Your task to perform on an android device: show emergency info Image 0: 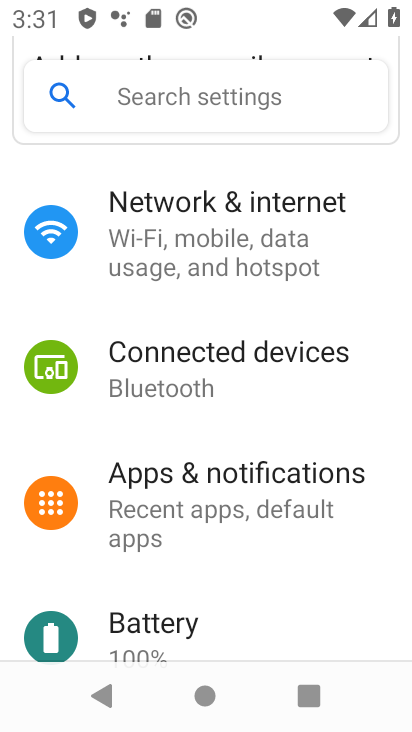
Step 0: drag from (324, 640) to (332, 167)
Your task to perform on an android device: show emergency info Image 1: 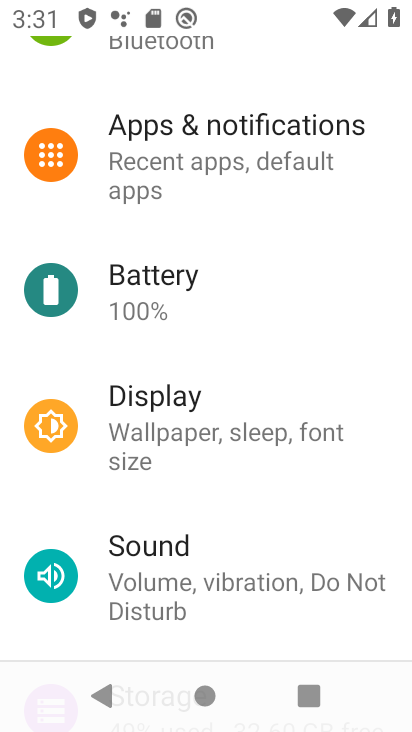
Step 1: drag from (349, 624) to (370, 195)
Your task to perform on an android device: show emergency info Image 2: 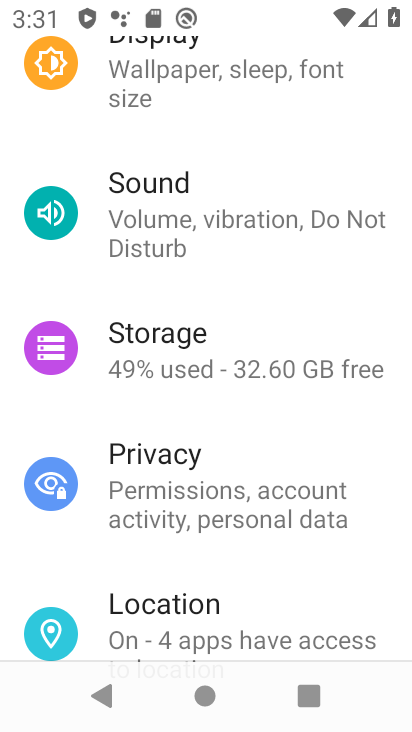
Step 2: drag from (333, 629) to (366, 222)
Your task to perform on an android device: show emergency info Image 3: 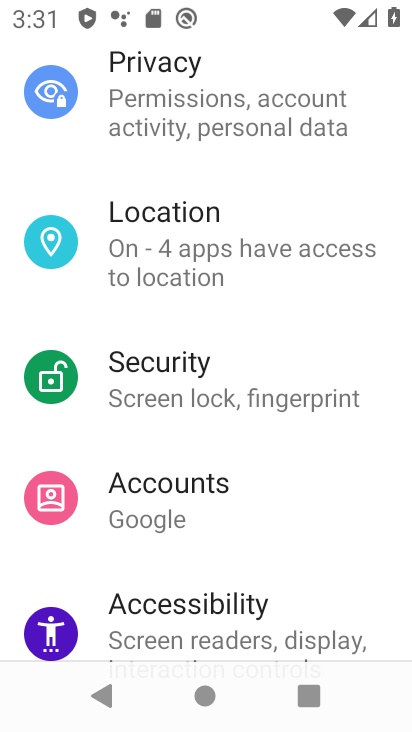
Step 3: click (222, 635)
Your task to perform on an android device: show emergency info Image 4: 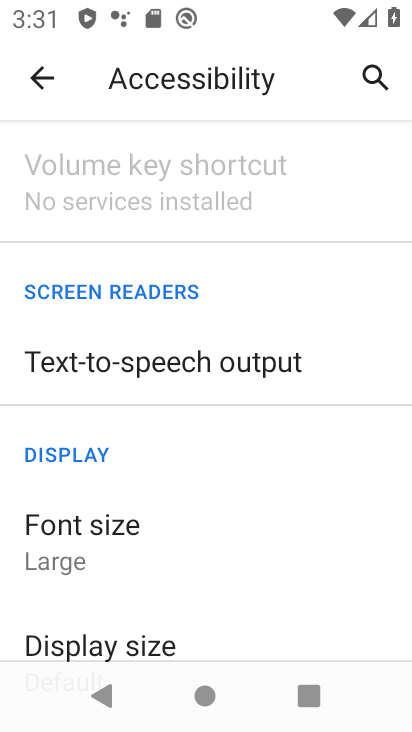
Step 4: drag from (233, 630) to (268, 245)
Your task to perform on an android device: show emergency info Image 5: 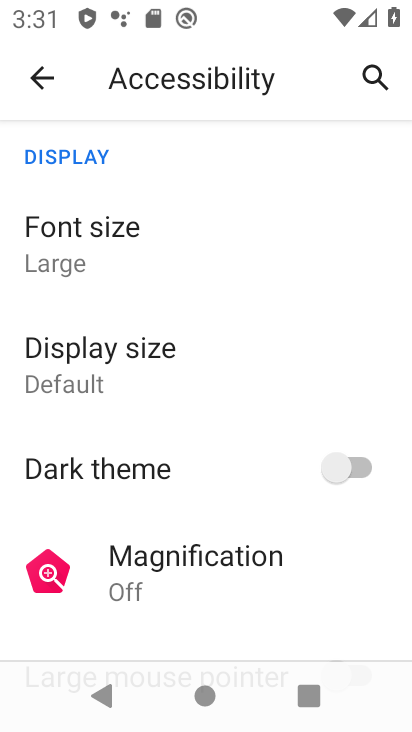
Step 5: click (43, 76)
Your task to perform on an android device: show emergency info Image 6: 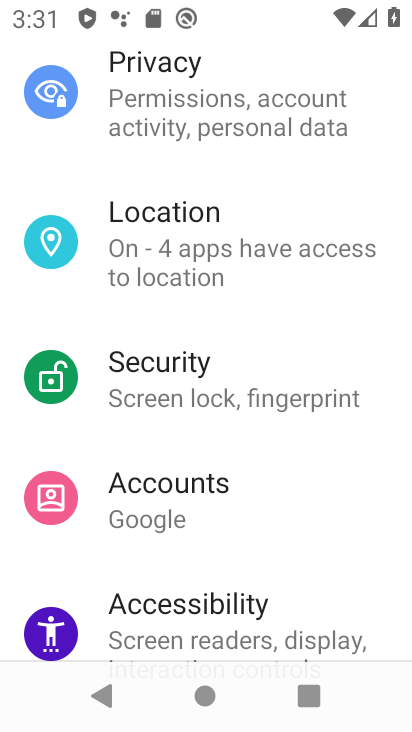
Step 6: drag from (225, 630) to (222, 190)
Your task to perform on an android device: show emergency info Image 7: 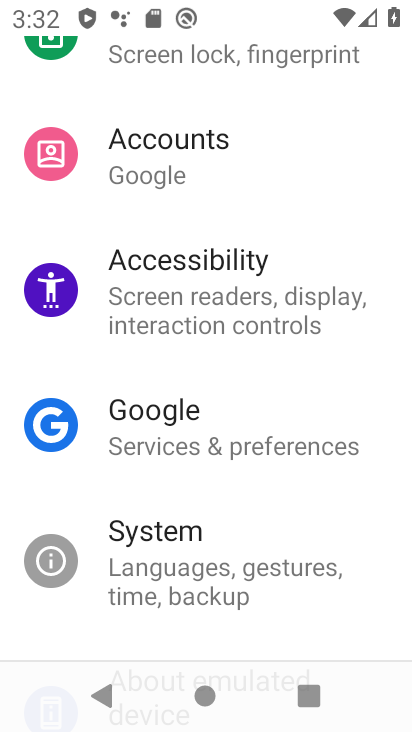
Step 7: drag from (238, 590) to (262, 211)
Your task to perform on an android device: show emergency info Image 8: 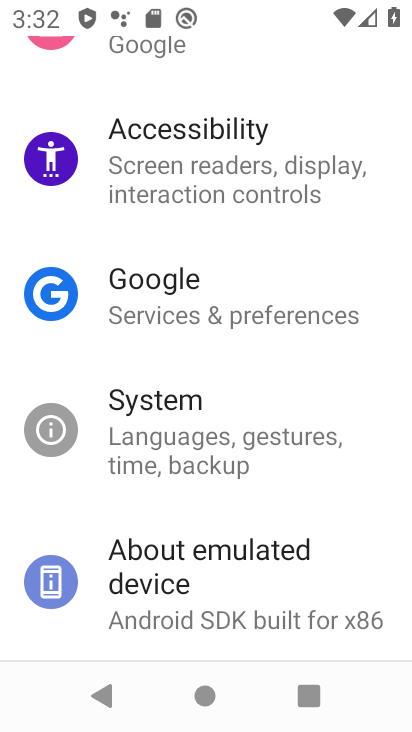
Step 8: click (215, 596)
Your task to perform on an android device: show emergency info Image 9: 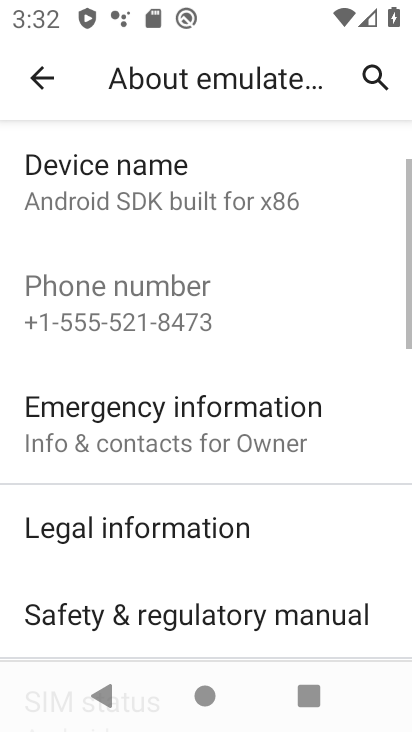
Step 9: click (178, 428)
Your task to perform on an android device: show emergency info Image 10: 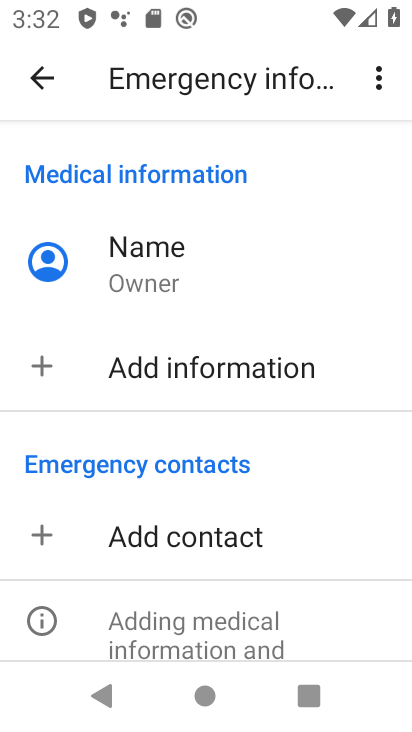
Step 10: task complete